Your task to perform on an android device: delete browsing data in the chrome app Image 0: 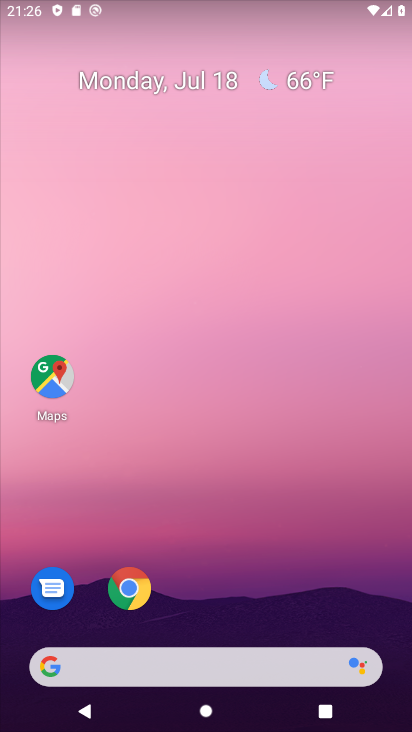
Step 0: press home button
Your task to perform on an android device: delete browsing data in the chrome app Image 1: 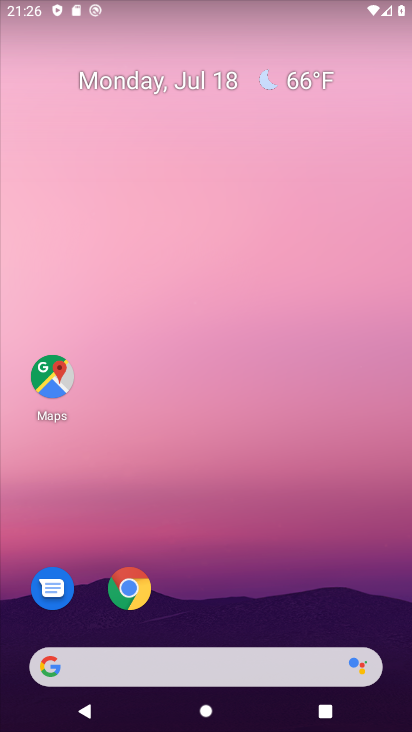
Step 1: drag from (312, 562) to (390, 80)
Your task to perform on an android device: delete browsing data in the chrome app Image 2: 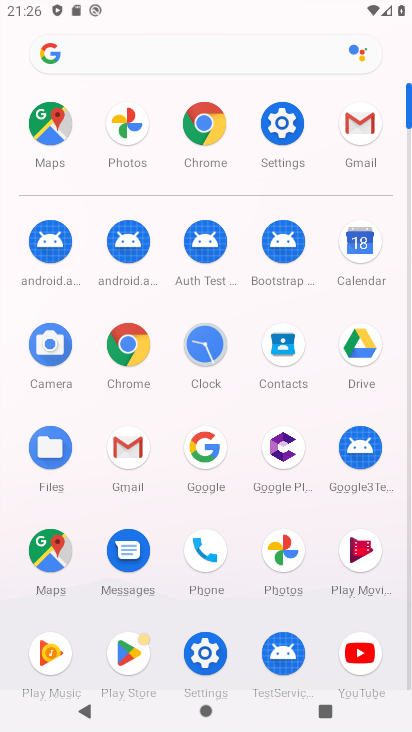
Step 2: click (212, 136)
Your task to perform on an android device: delete browsing data in the chrome app Image 3: 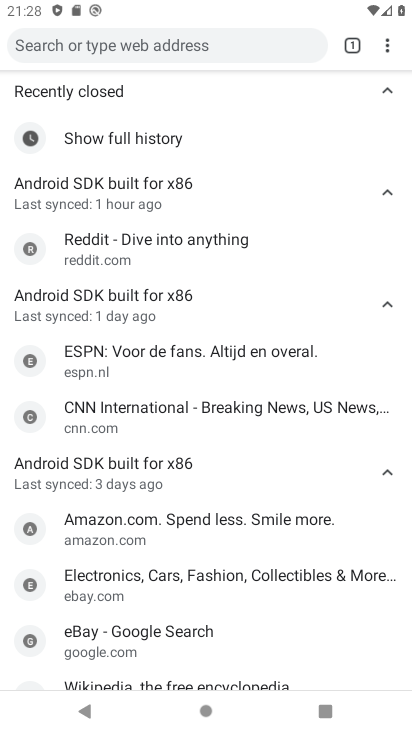
Step 3: drag from (387, 42) to (253, 433)
Your task to perform on an android device: delete browsing data in the chrome app Image 4: 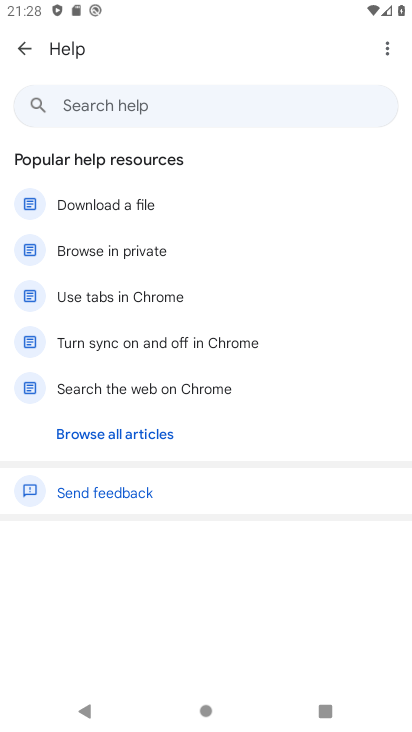
Step 4: click (22, 41)
Your task to perform on an android device: delete browsing data in the chrome app Image 5: 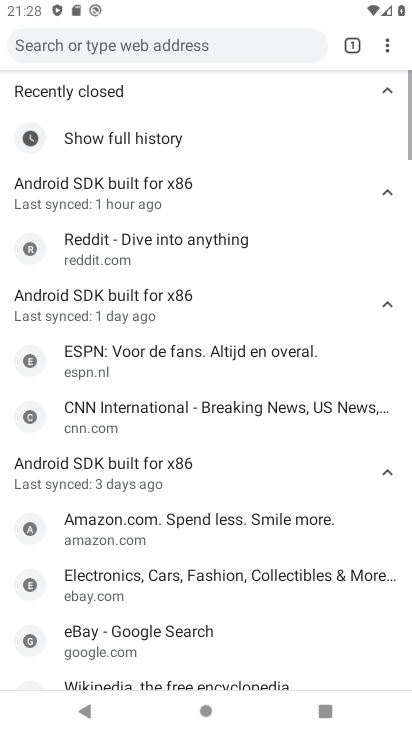
Step 5: click (383, 47)
Your task to perform on an android device: delete browsing data in the chrome app Image 6: 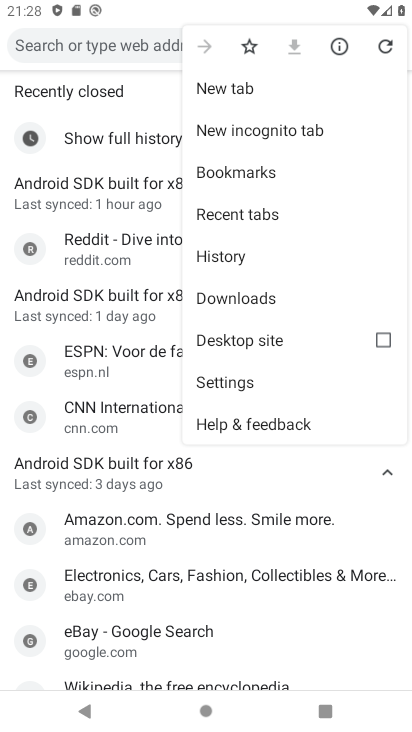
Step 6: click (233, 390)
Your task to perform on an android device: delete browsing data in the chrome app Image 7: 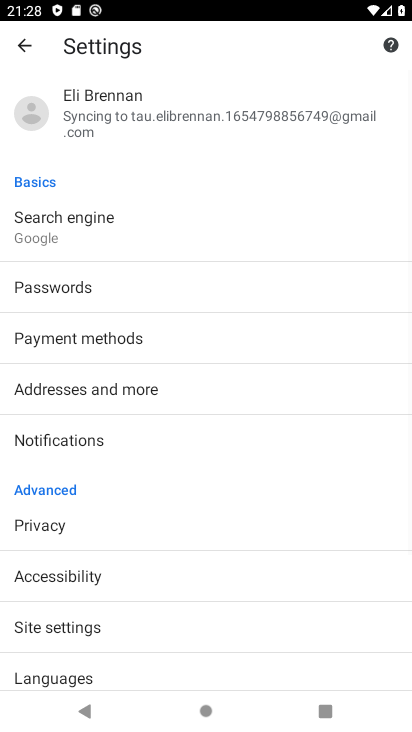
Step 7: drag from (169, 619) to (203, 247)
Your task to perform on an android device: delete browsing data in the chrome app Image 8: 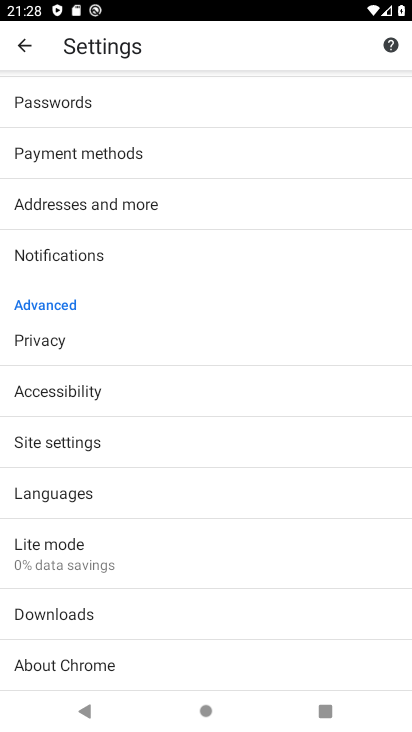
Step 8: click (42, 353)
Your task to perform on an android device: delete browsing data in the chrome app Image 9: 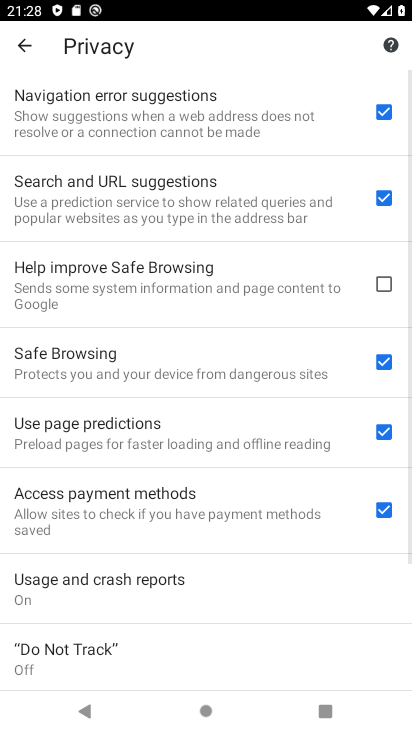
Step 9: drag from (74, 618) to (121, 104)
Your task to perform on an android device: delete browsing data in the chrome app Image 10: 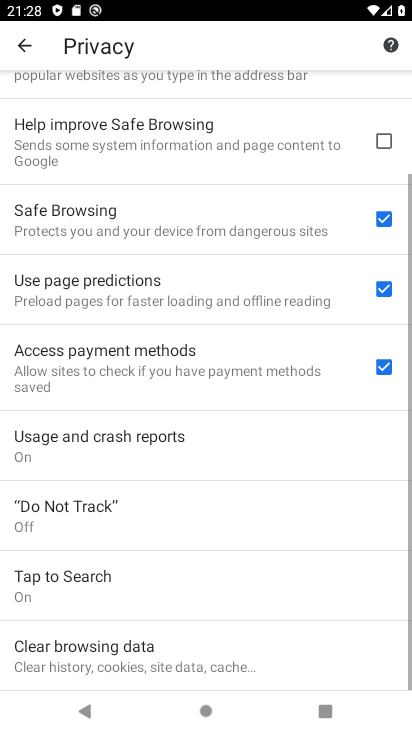
Step 10: click (59, 635)
Your task to perform on an android device: delete browsing data in the chrome app Image 11: 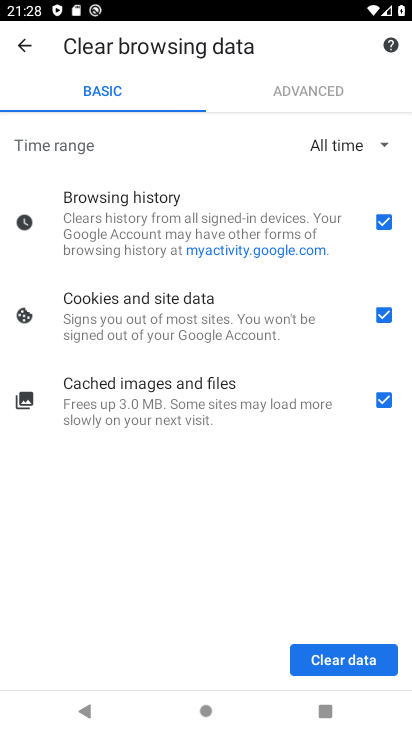
Step 11: click (331, 661)
Your task to perform on an android device: delete browsing data in the chrome app Image 12: 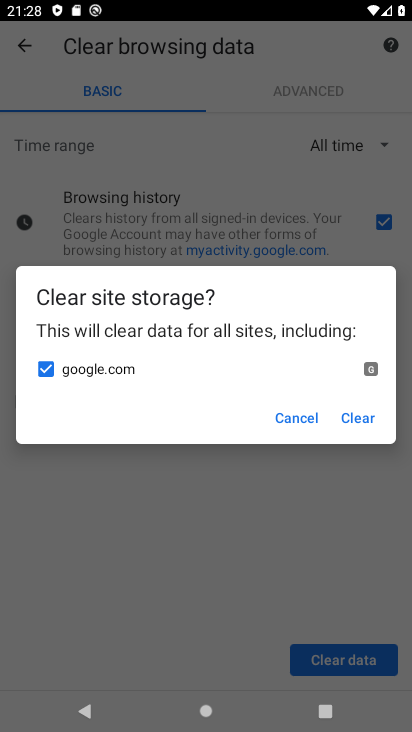
Step 12: click (363, 425)
Your task to perform on an android device: delete browsing data in the chrome app Image 13: 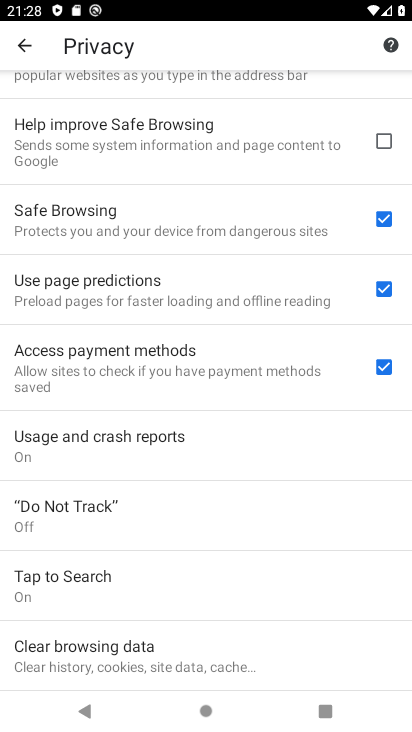
Step 13: task complete